Your task to perform on an android device: clear all cookies in the chrome app Image 0: 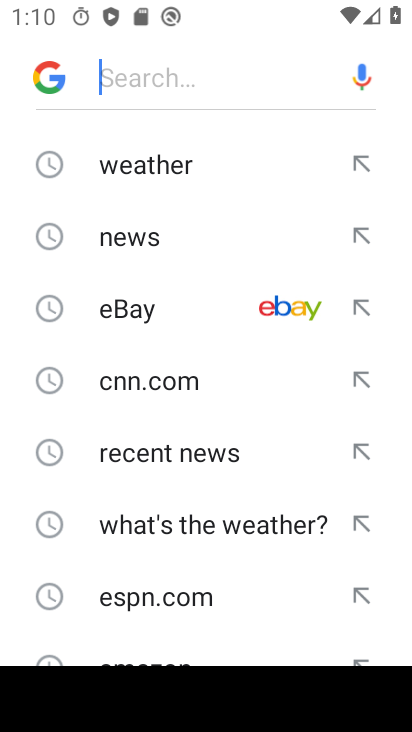
Step 0: press home button
Your task to perform on an android device: clear all cookies in the chrome app Image 1: 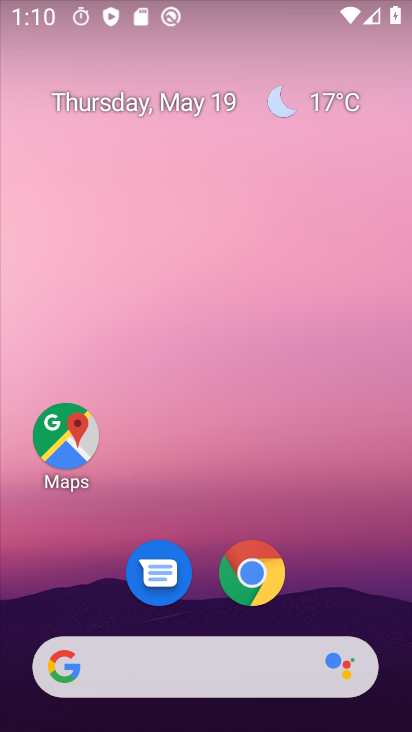
Step 1: click (245, 567)
Your task to perform on an android device: clear all cookies in the chrome app Image 2: 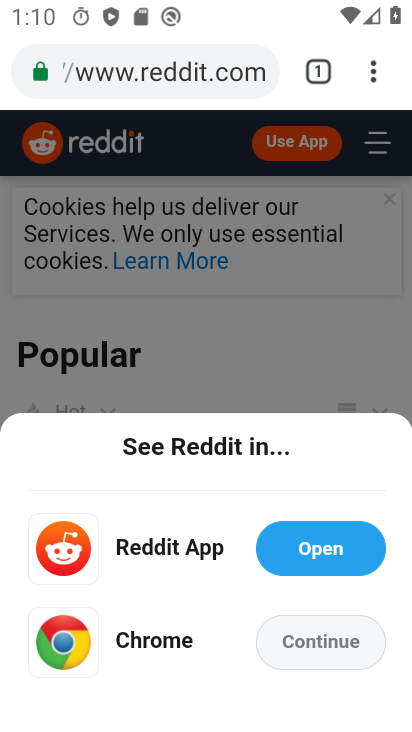
Step 2: drag from (380, 72) to (136, 395)
Your task to perform on an android device: clear all cookies in the chrome app Image 3: 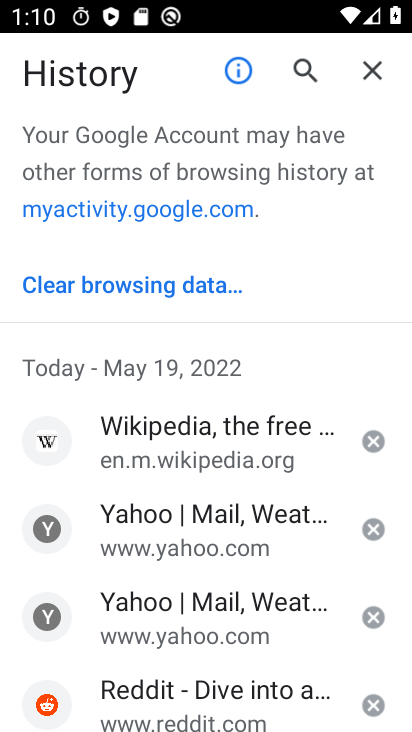
Step 3: click (129, 280)
Your task to perform on an android device: clear all cookies in the chrome app Image 4: 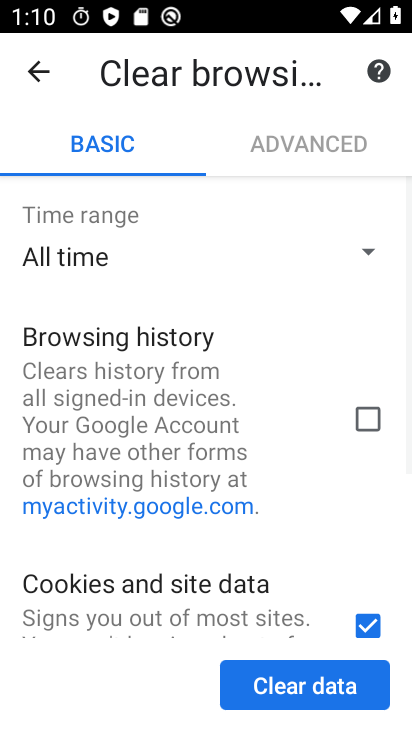
Step 4: click (307, 683)
Your task to perform on an android device: clear all cookies in the chrome app Image 5: 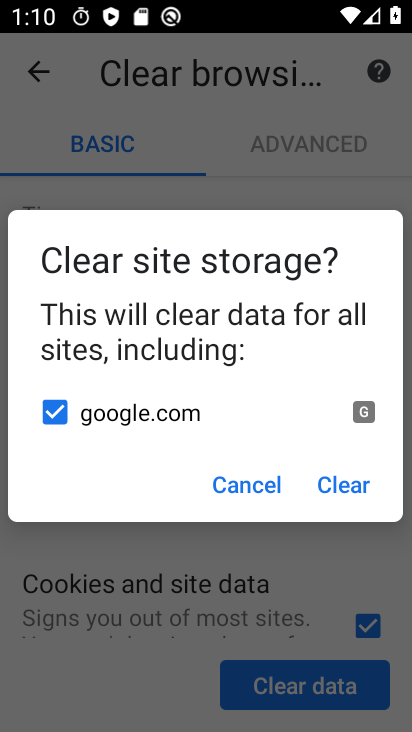
Step 5: click (343, 480)
Your task to perform on an android device: clear all cookies in the chrome app Image 6: 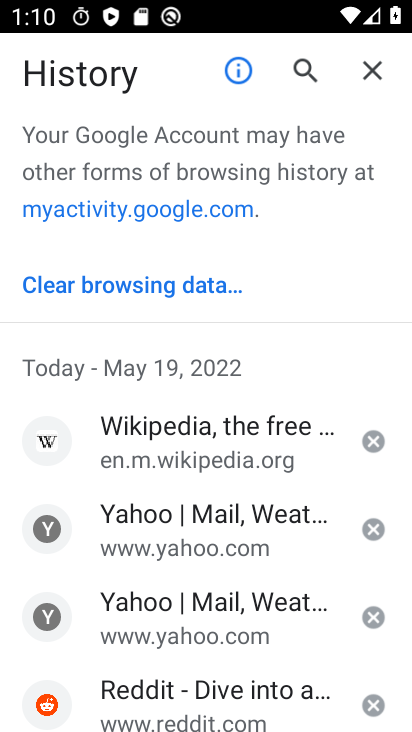
Step 6: task complete